Your task to perform on an android device: see tabs open on other devices in the chrome app Image 0: 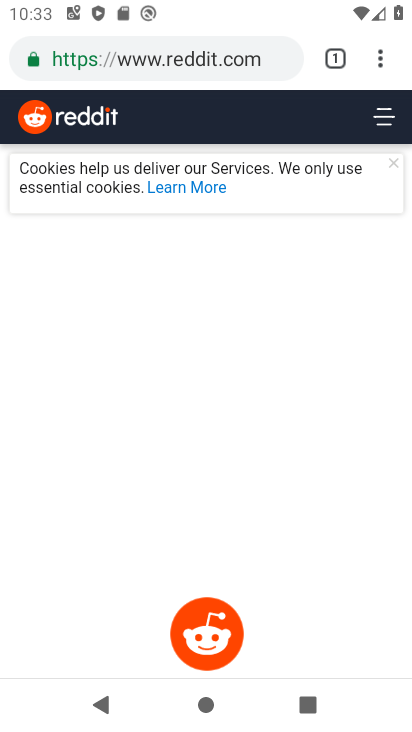
Step 0: press home button
Your task to perform on an android device: see tabs open on other devices in the chrome app Image 1: 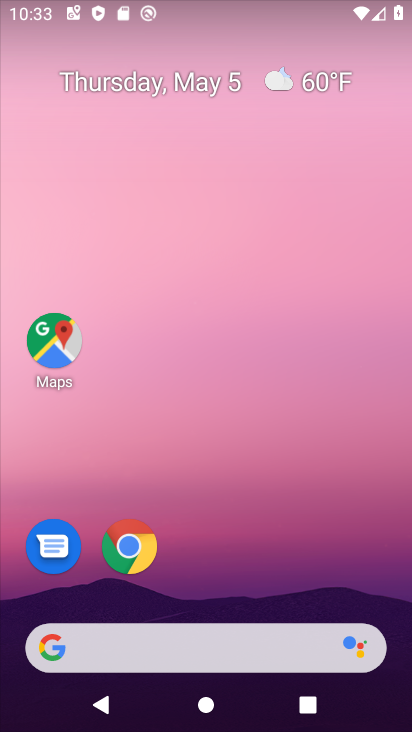
Step 1: click (132, 553)
Your task to perform on an android device: see tabs open on other devices in the chrome app Image 2: 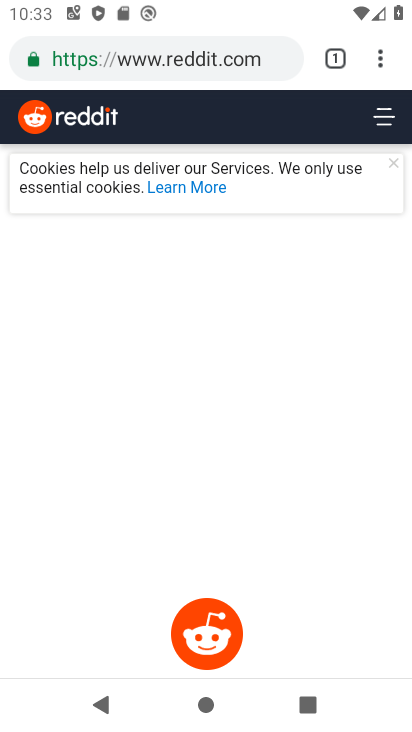
Step 2: click (384, 63)
Your task to perform on an android device: see tabs open on other devices in the chrome app Image 3: 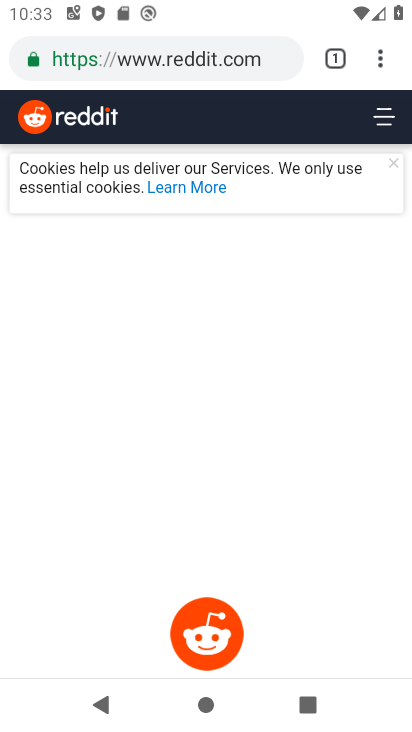
Step 3: click (385, 65)
Your task to perform on an android device: see tabs open on other devices in the chrome app Image 4: 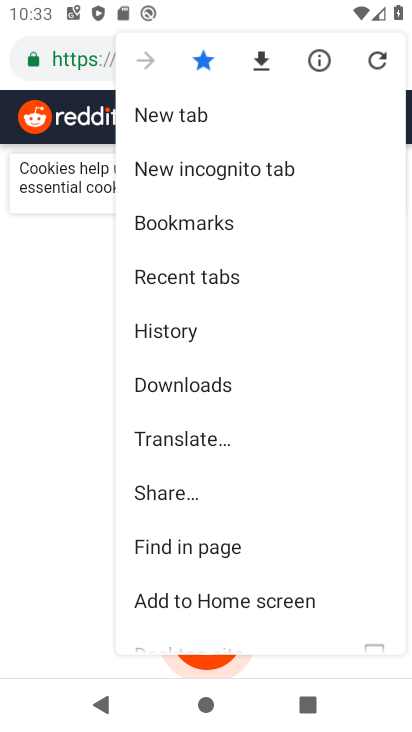
Step 4: click (208, 280)
Your task to perform on an android device: see tabs open on other devices in the chrome app Image 5: 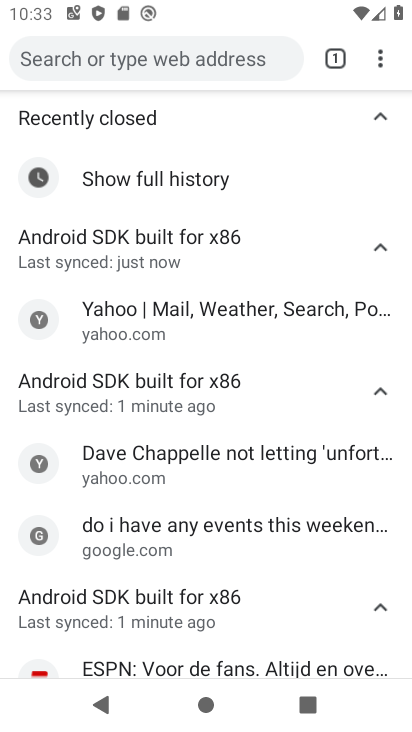
Step 5: task complete